Your task to perform on an android device: delete location history Image 0: 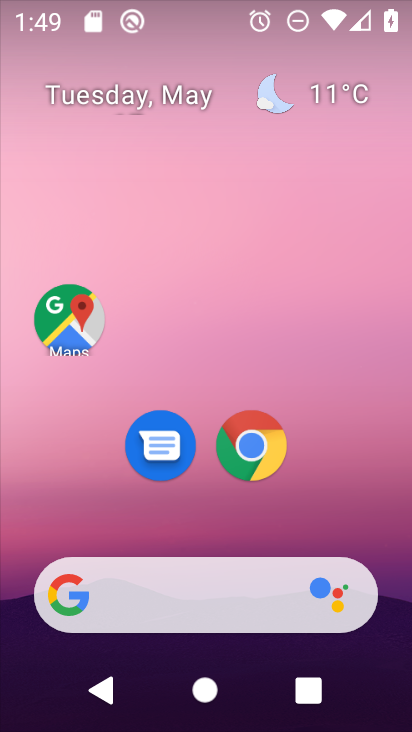
Step 0: click (84, 324)
Your task to perform on an android device: delete location history Image 1: 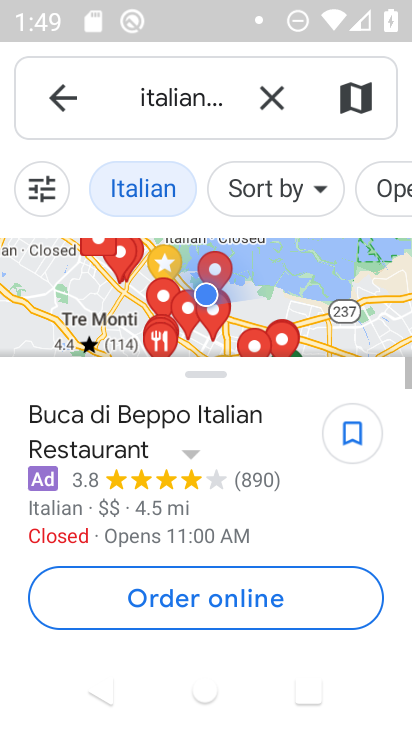
Step 1: click (67, 113)
Your task to perform on an android device: delete location history Image 2: 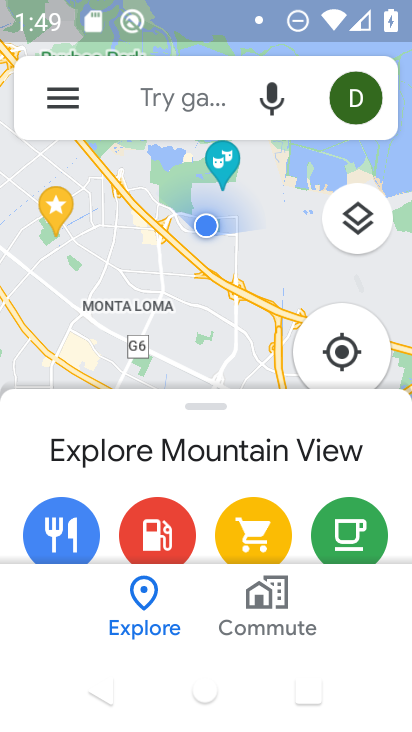
Step 2: click (67, 113)
Your task to perform on an android device: delete location history Image 3: 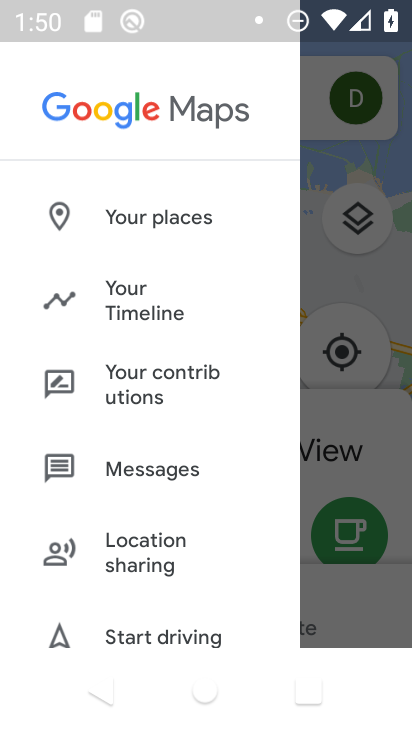
Step 3: click (116, 285)
Your task to perform on an android device: delete location history Image 4: 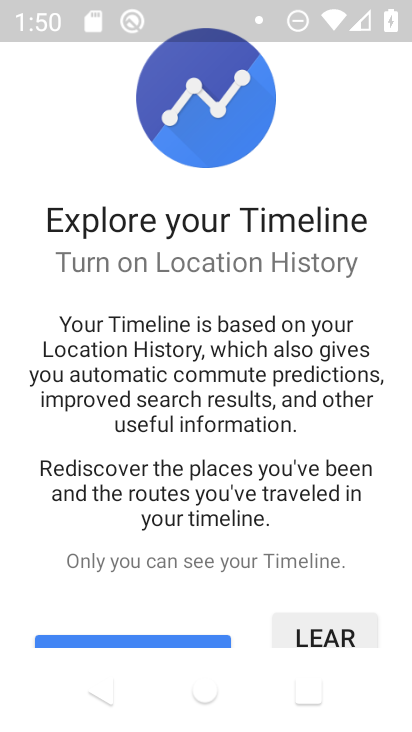
Step 4: drag from (255, 608) to (188, 388)
Your task to perform on an android device: delete location history Image 5: 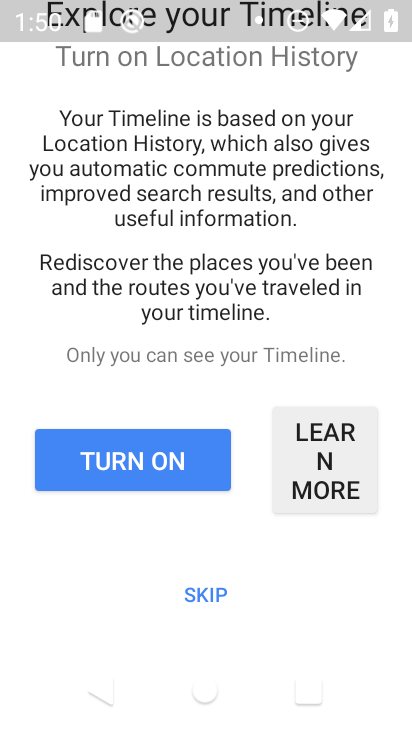
Step 5: click (178, 456)
Your task to perform on an android device: delete location history Image 6: 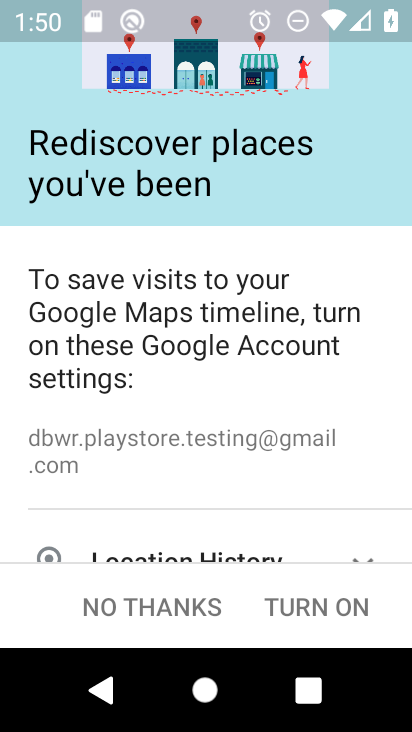
Step 6: click (192, 608)
Your task to perform on an android device: delete location history Image 7: 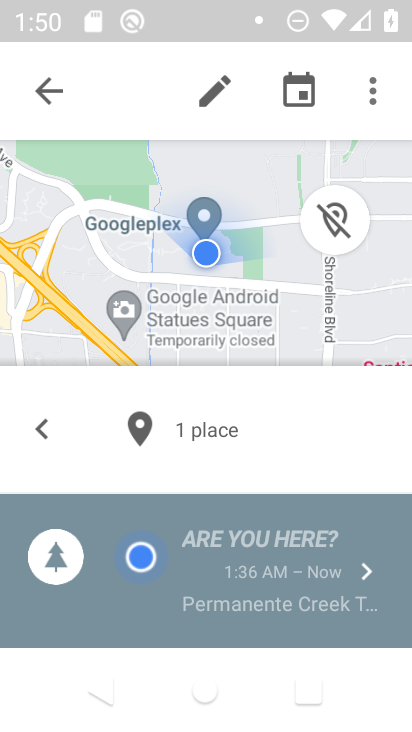
Step 7: click (369, 103)
Your task to perform on an android device: delete location history Image 8: 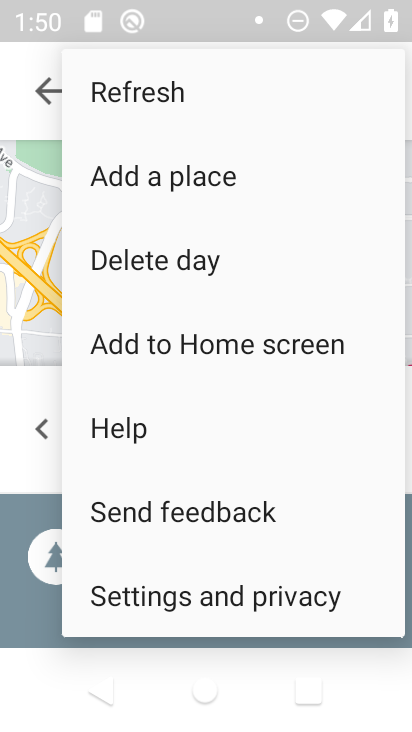
Step 8: click (174, 249)
Your task to perform on an android device: delete location history Image 9: 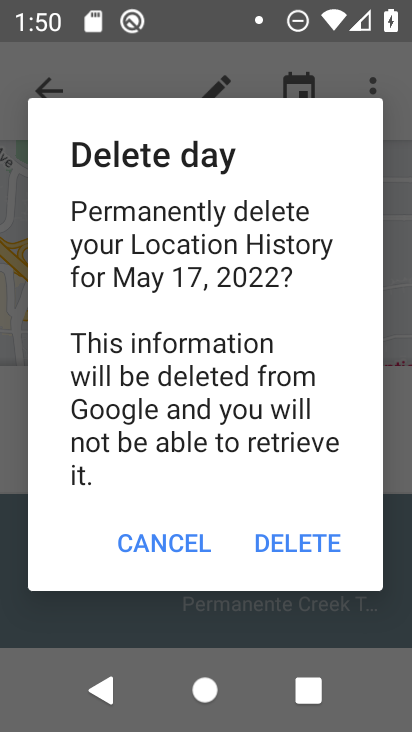
Step 9: click (308, 542)
Your task to perform on an android device: delete location history Image 10: 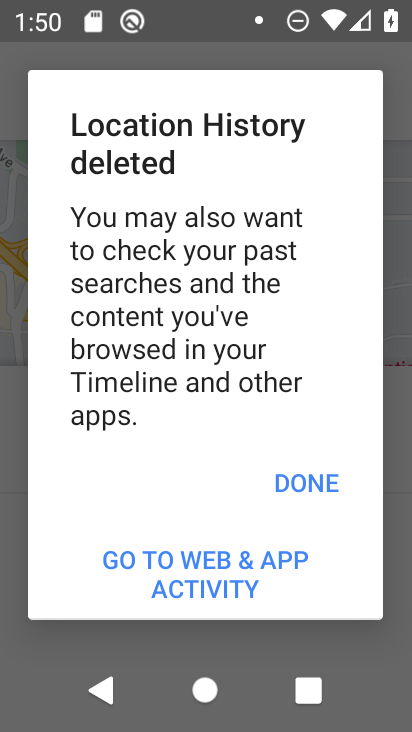
Step 10: click (301, 491)
Your task to perform on an android device: delete location history Image 11: 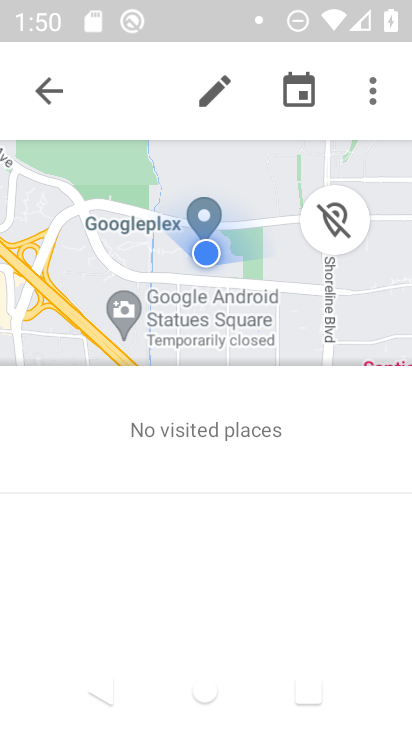
Step 11: task complete